Your task to perform on an android device: toggle wifi Image 0: 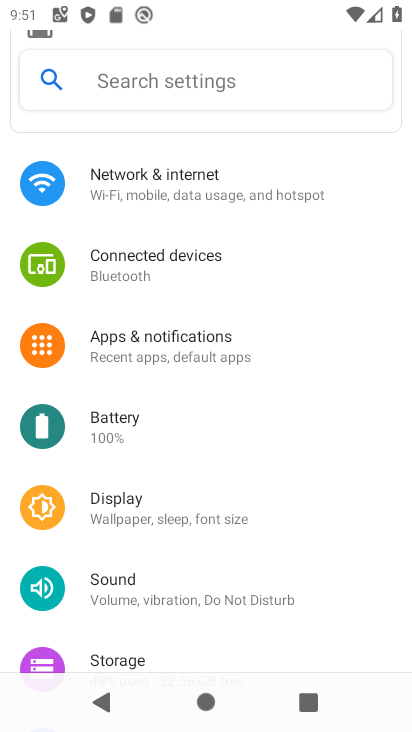
Step 0: click (176, 186)
Your task to perform on an android device: toggle wifi Image 1: 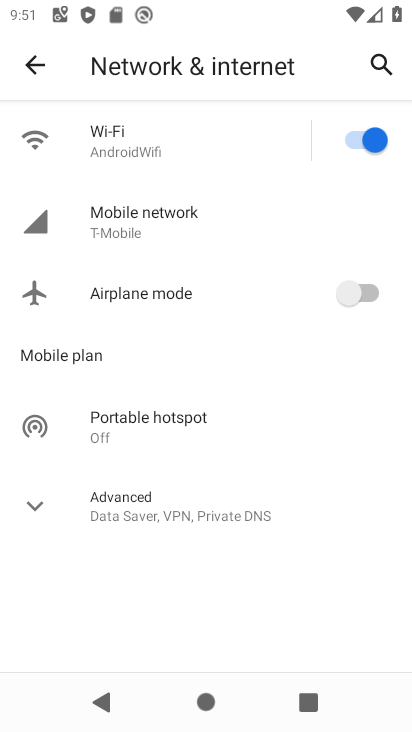
Step 1: click (373, 132)
Your task to perform on an android device: toggle wifi Image 2: 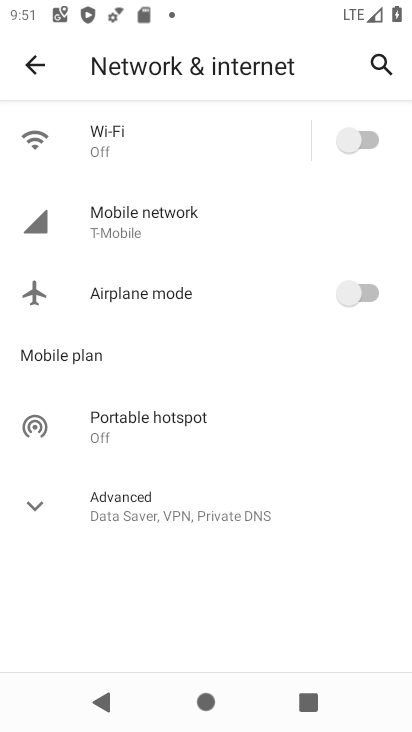
Step 2: task complete